Your task to perform on an android device: Open eBay Image 0: 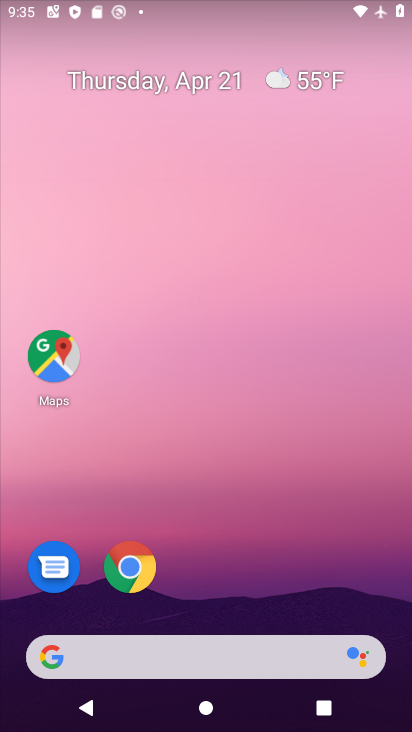
Step 0: click (128, 569)
Your task to perform on an android device: Open eBay Image 1: 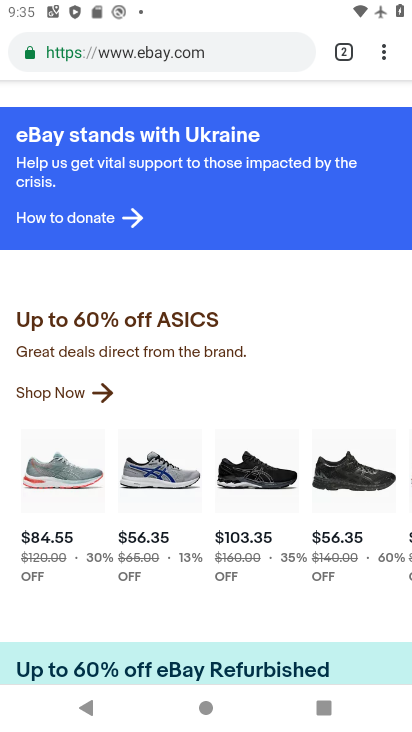
Step 1: task complete